Your task to perform on an android device: Search for sushi restaurants on Maps Image 0: 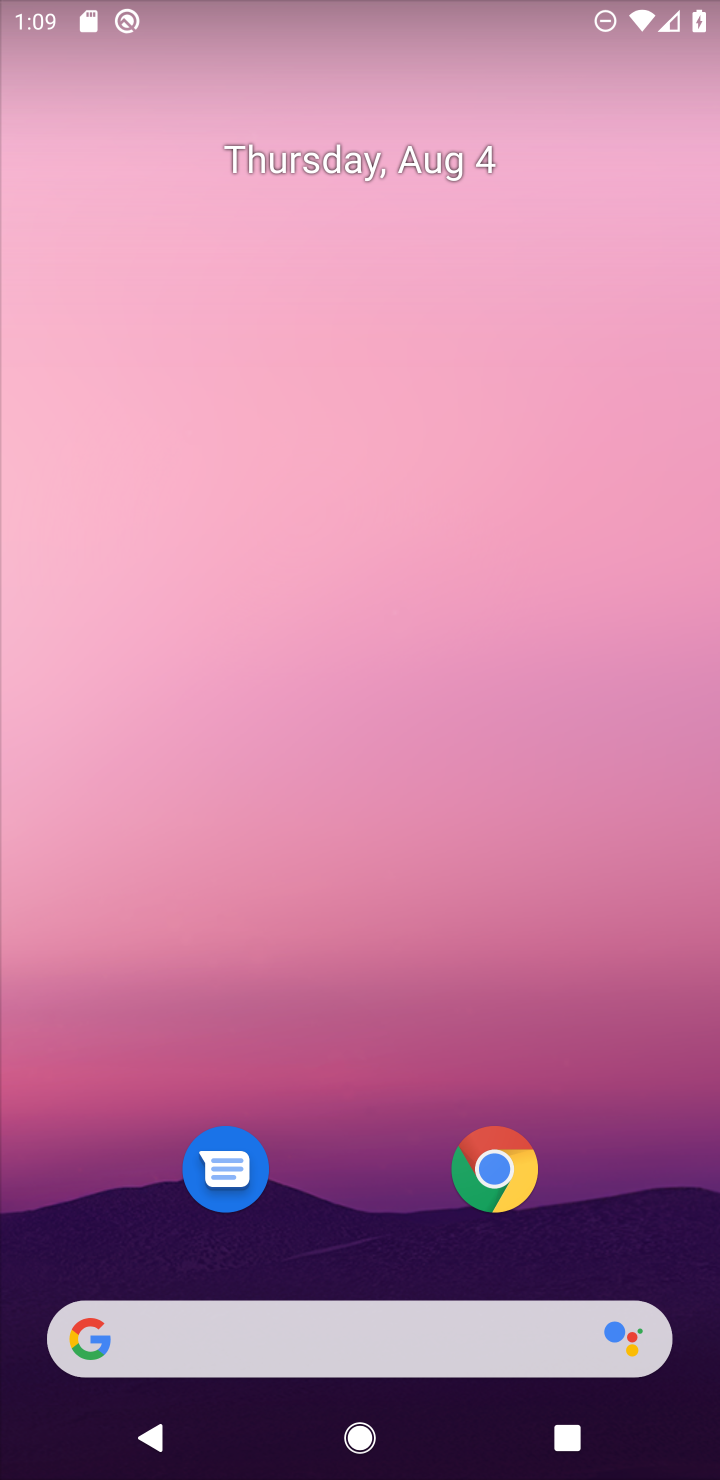
Step 0: drag from (365, 1231) to (379, 53)
Your task to perform on an android device: Search for sushi restaurants on Maps Image 1: 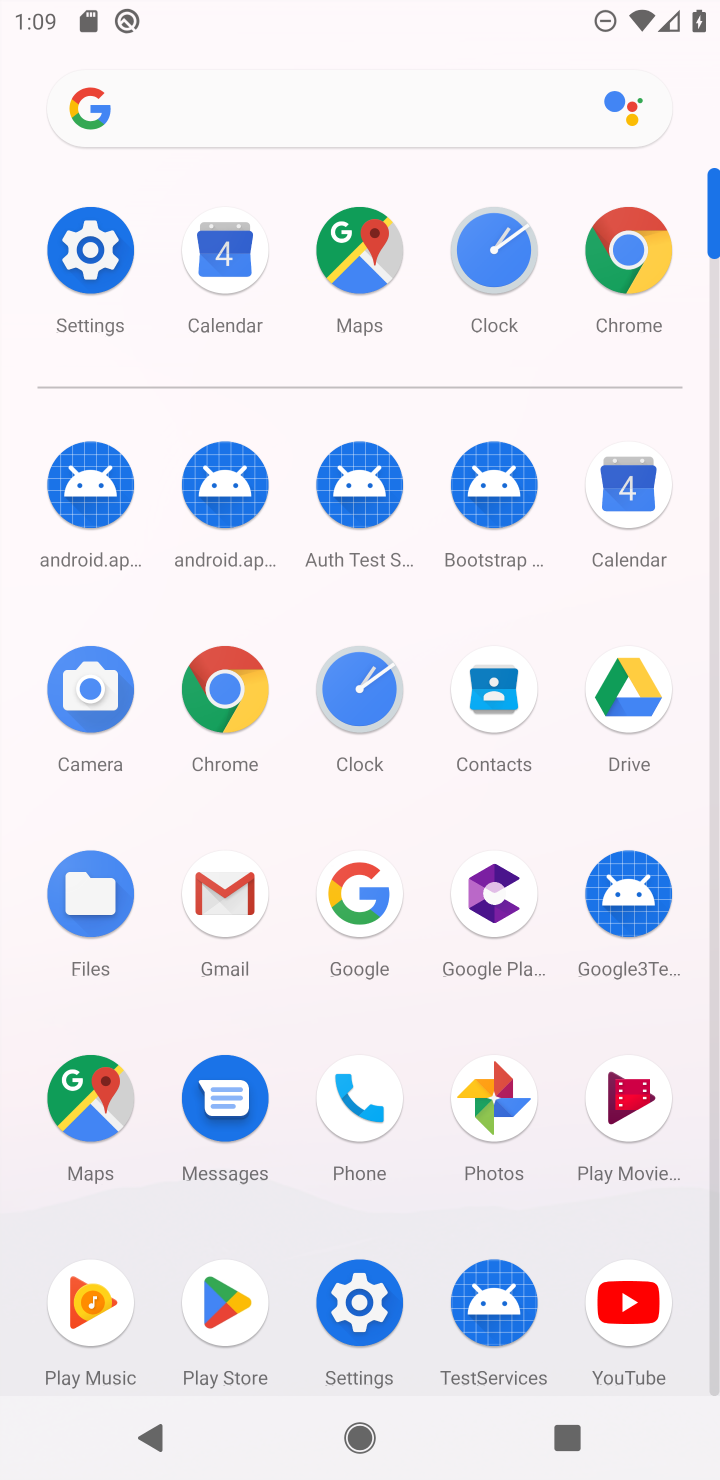
Step 1: click (350, 259)
Your task to perform on an android device: Search for sushi restaurants on Maps Image 2: 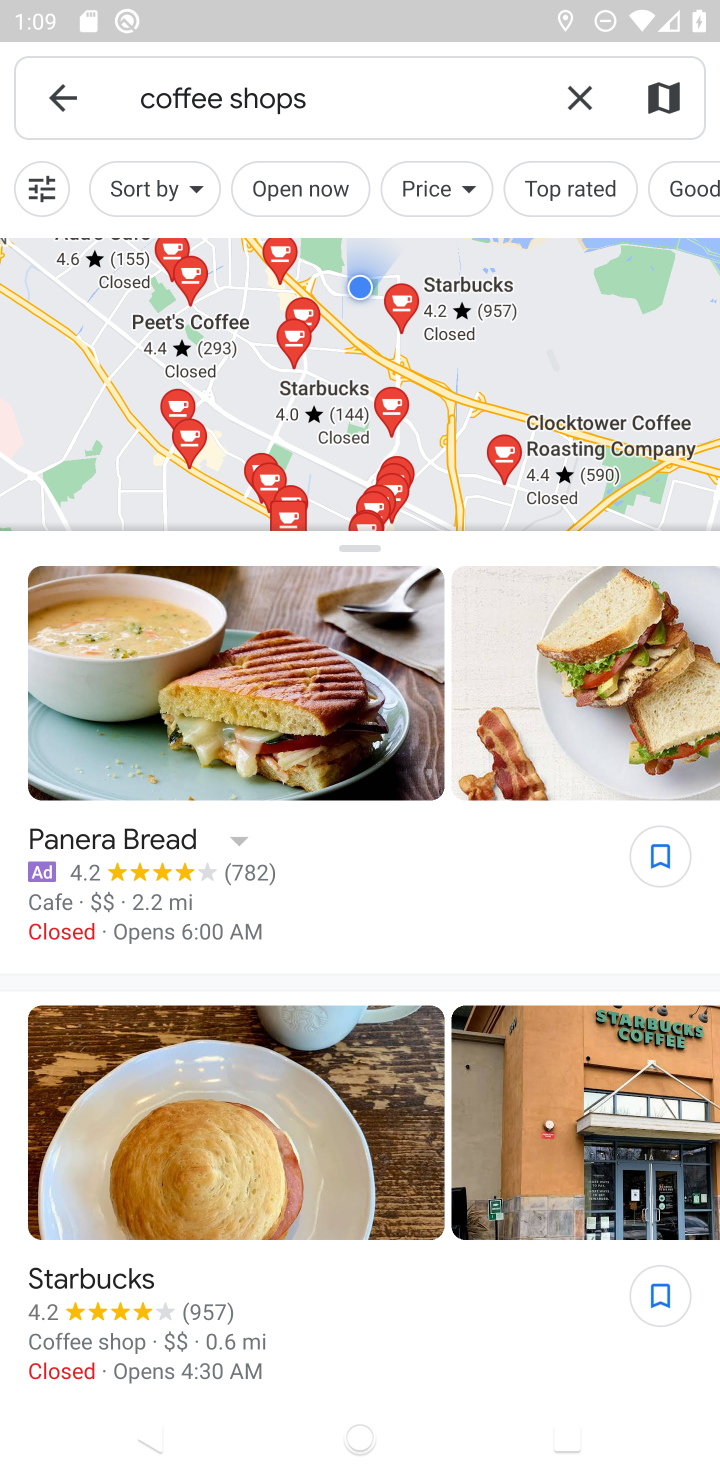
Step 2: click (563, 99)
Your task to perform on an android device: Search for sushi restaurants on Maps Image 3: 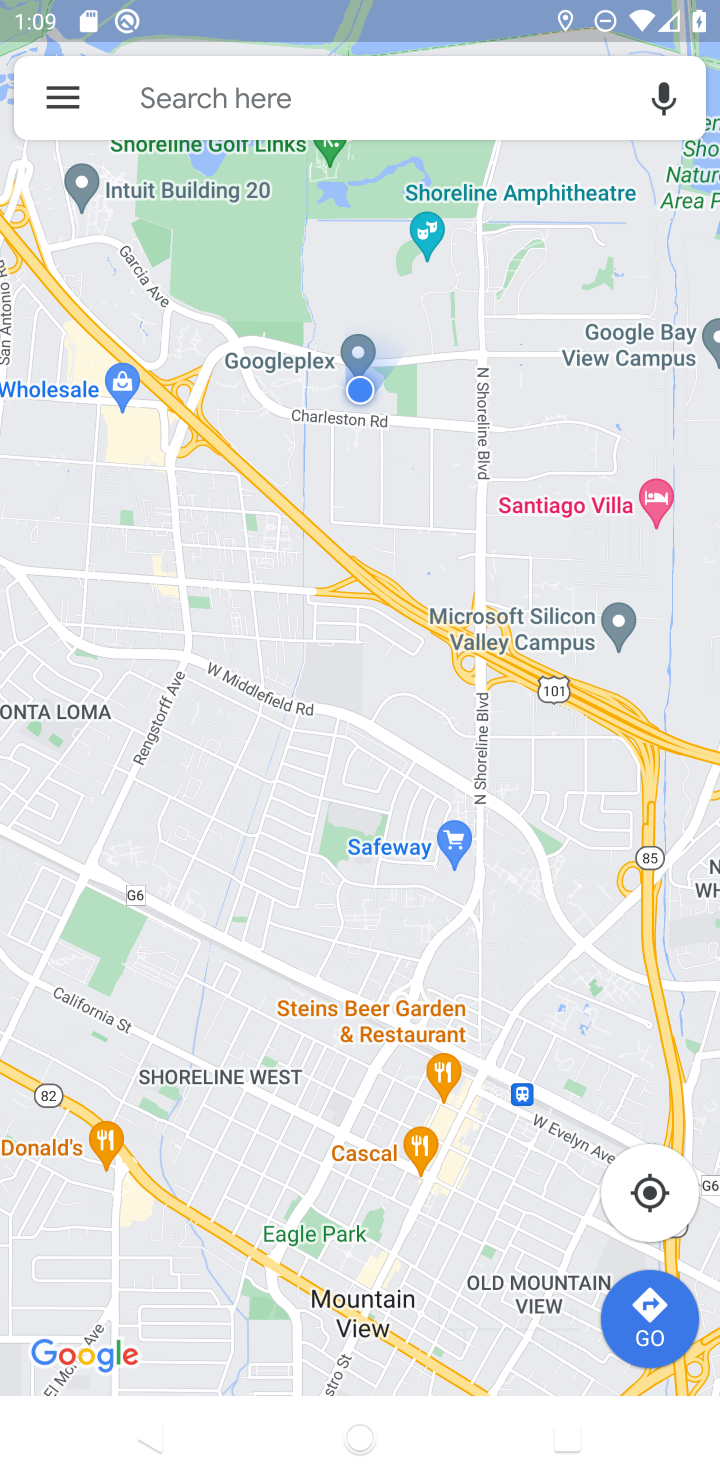
Step 3: type "sushi restaurants"
Your task to perform on an android device: Search for sushi restaurants on Maps Image 4: 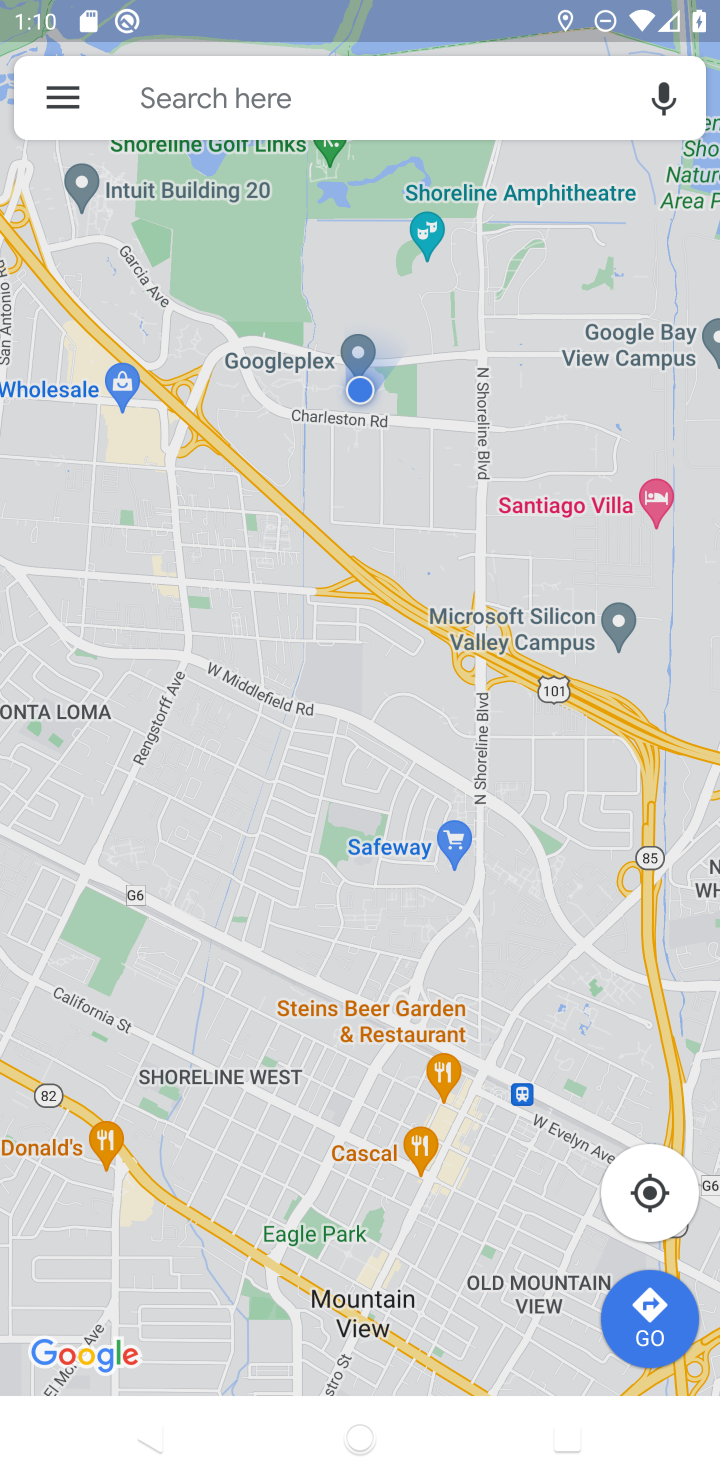
Step 4: click (355, 99)
Your task to perform on an android device: Search for sushi restaurants on Maps Image 5: 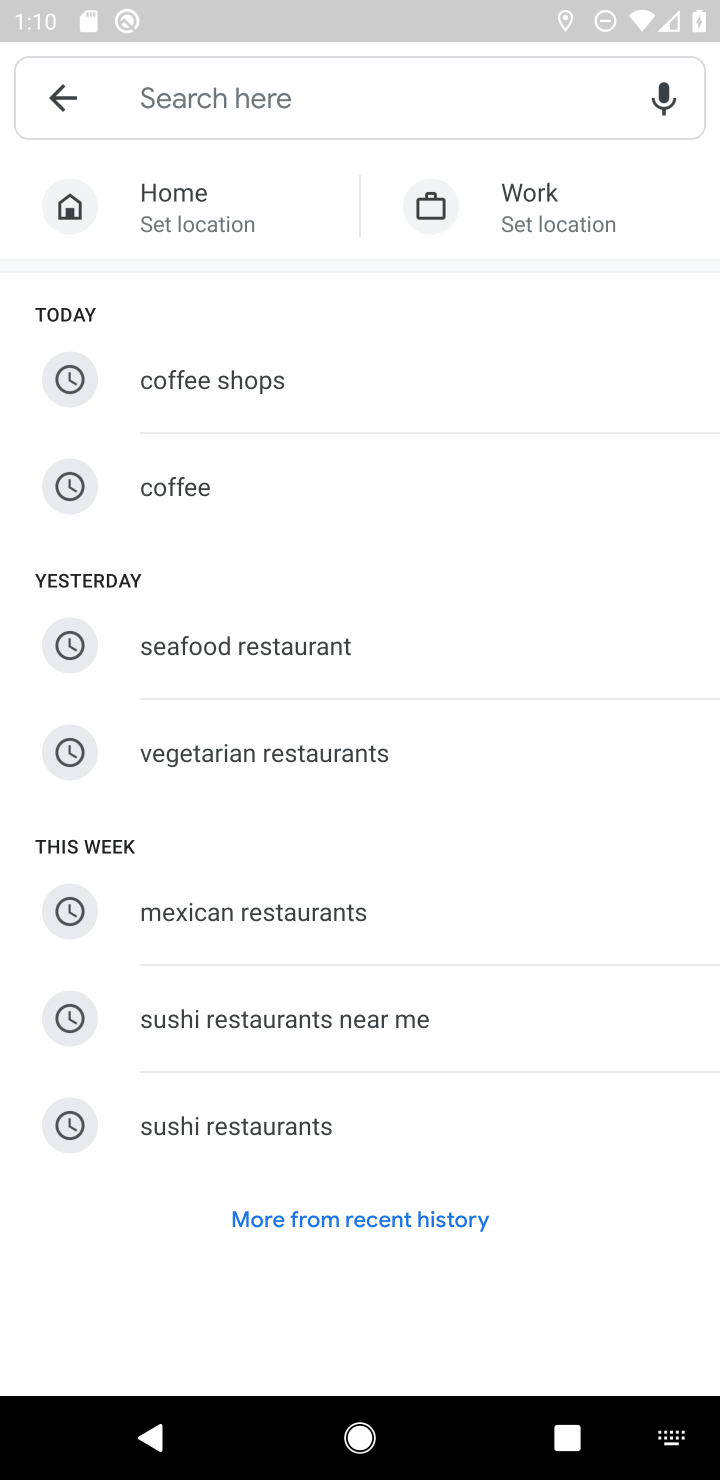
Step 5: type "sushi restaurants"
Your task to perform on an android device: Search for sushi restaurants on Maps Image 6: 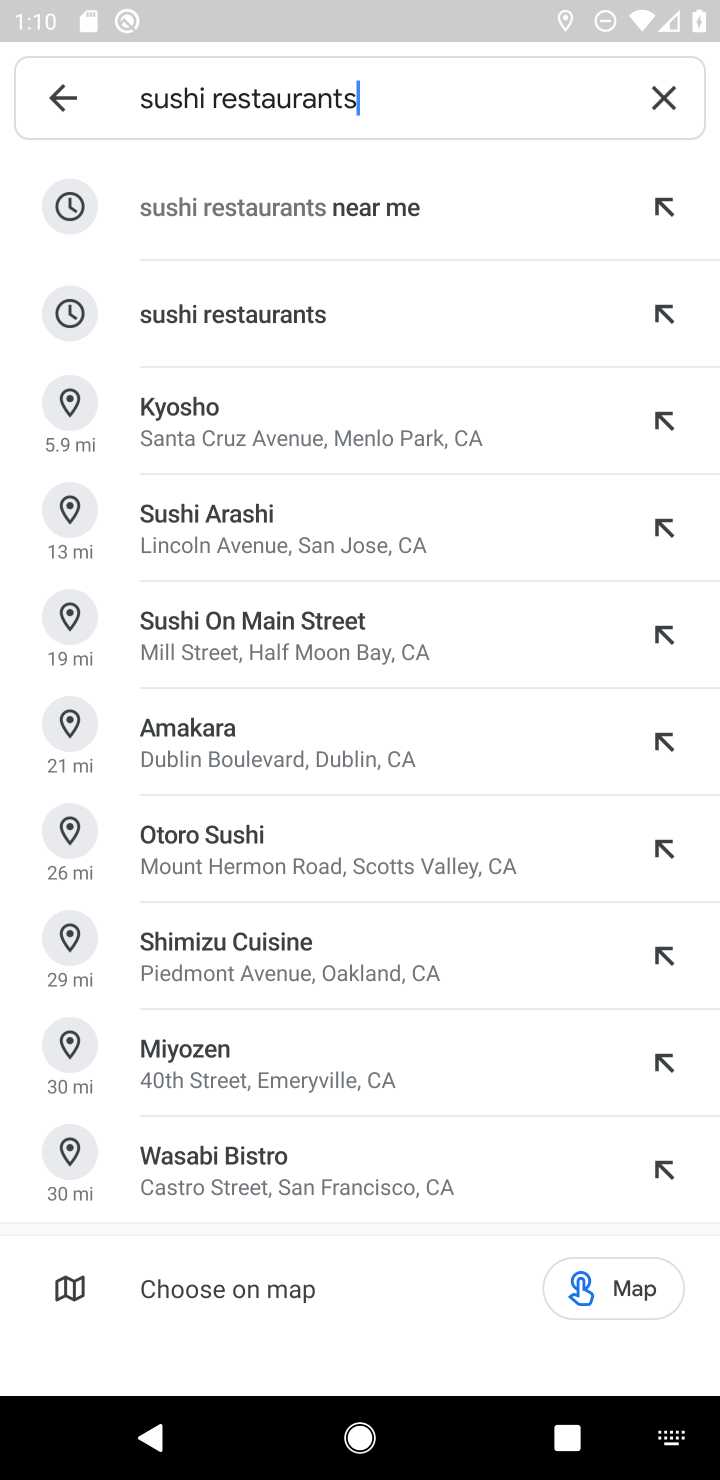
Step 6: click (214, 315)
Your task to perform on an android device: Search for sushi restaurants on Maps Image 7: 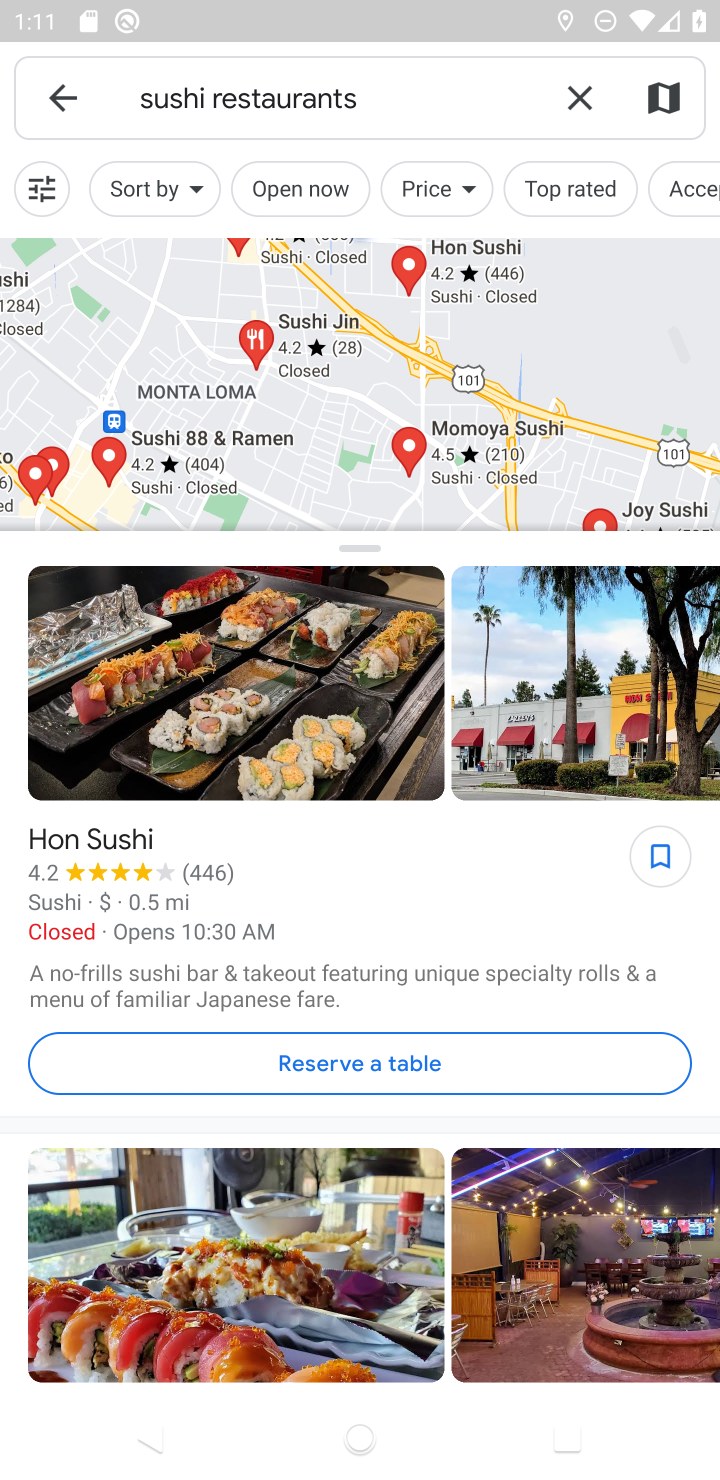
Step 7: task complete